Your task to perform on an android device: Go to Yahoo.com Image 0: 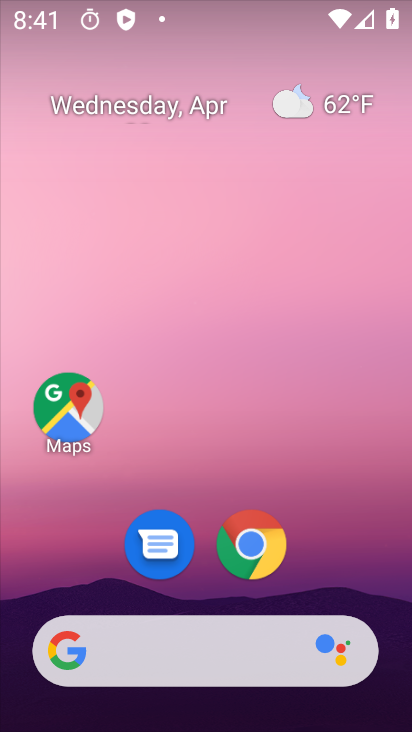
Step 0: click (242, 548)
Your task to perform on an android device: Go to Yahoo.com Image 1: 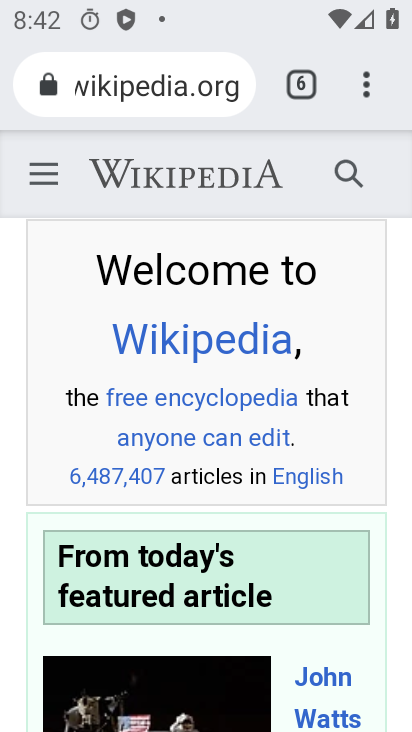
Step 1: click (304, 85)
Your task to perform on an android device: Go to Yahoo.com Image 2: 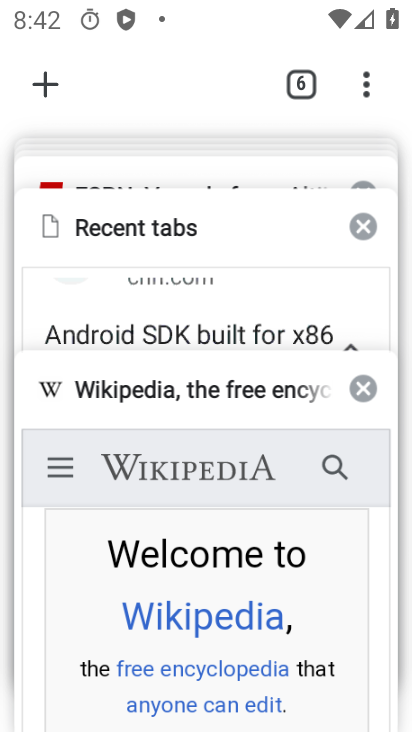
Step 2: drag from (247, 194) to (233, 576)
Your task to perform on an android device: Go to Yahoo.com Image 3: 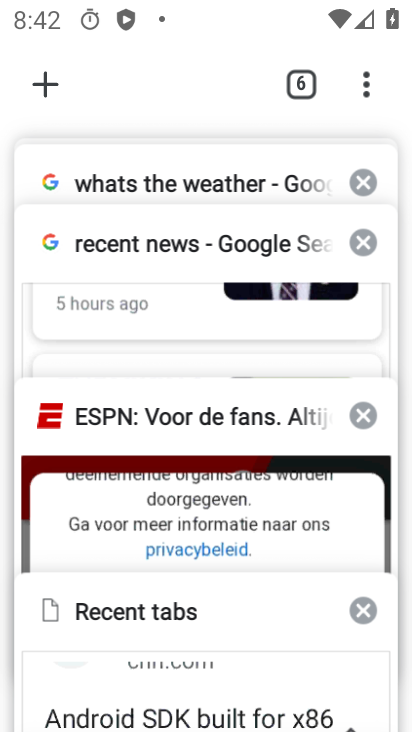
Step 3: drag from (209, 267) to (228, 623)
Your task to perform on an android device: Go to Yahoo.com Image 4: 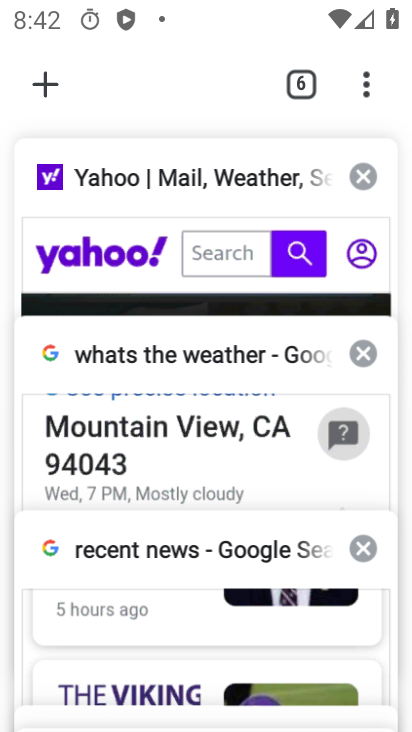
Step 4: click (163, 197)
Your task to perform on an android device: Go to Yahoo.com Image 5: 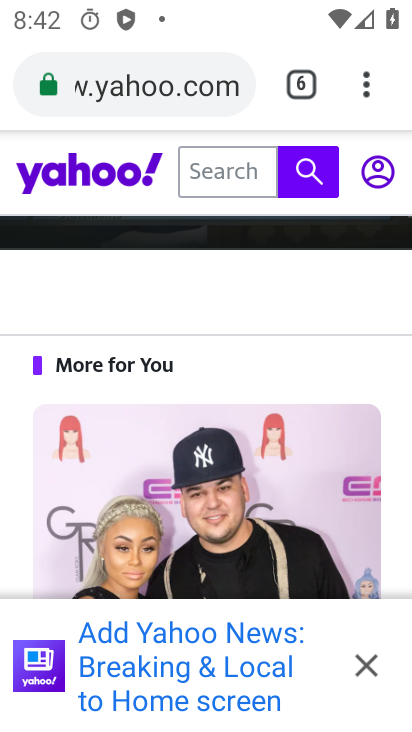
Step 5: task complete